Your task to perform on an android device: Open the calendar and show me this week's events? Image 0: 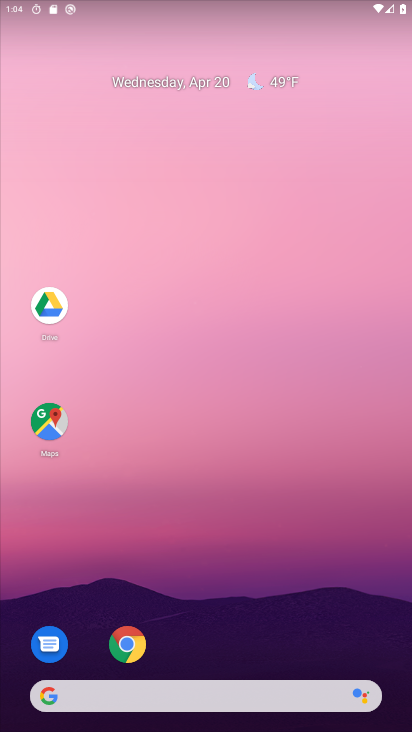
Step 0: drag from (238, 629) to (233, 39)
Your task to perform on an android device: Open the calendar and show me this week's events? Image 1: 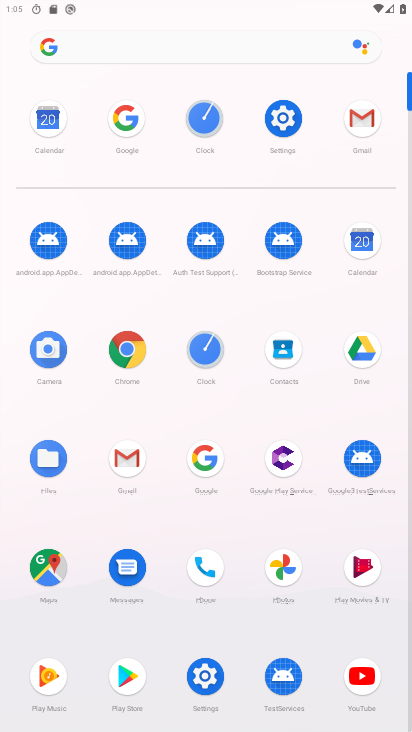
Step 1: click (356, 240)
Your task to perform on an android device: Open the calendar and show me this week's events? Image 2: 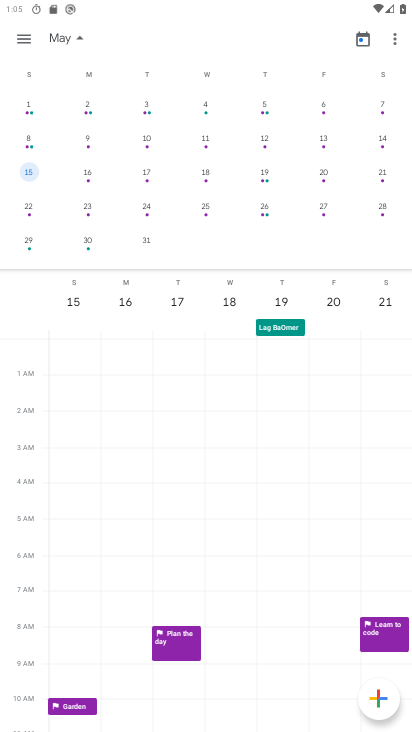
Step 2: click (79, 30)
Your task to perform on an android device: Open the calendar and show me this week's events? Image 3: 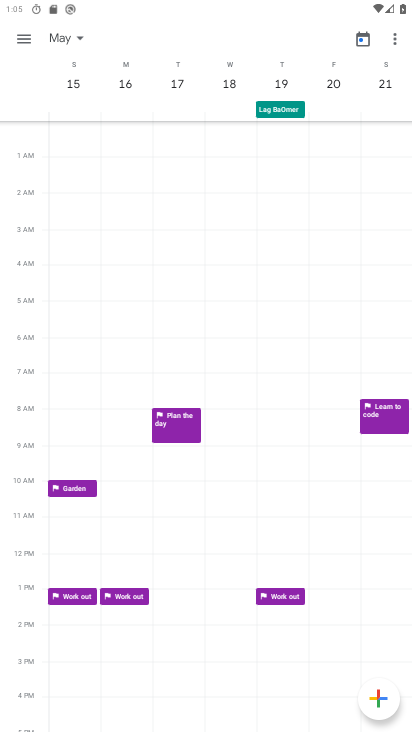
Step 3: click (78, 38)
Your task to perform on an android device: Open the calendar and show me this week's events? Image 4: 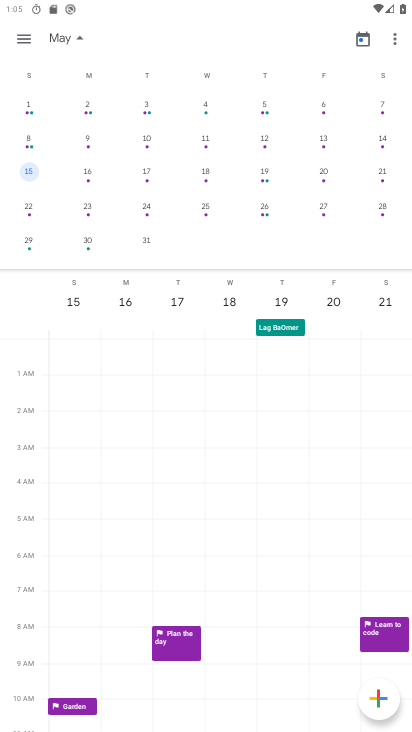
Step 4: drag from (57, 193) to (410, 210)
Your task to perform on an android device: Open the calendar and show me this week's events? Image 5: 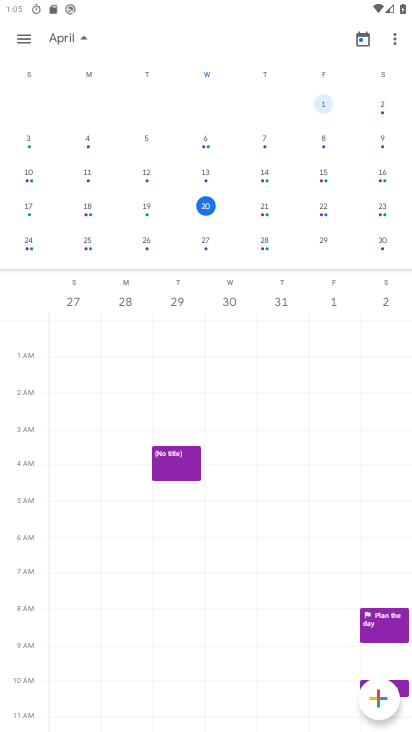
Step 5: click (36, 203)
Your task to perform on an android device: Open the calendar and show me this week's events? Image 6: 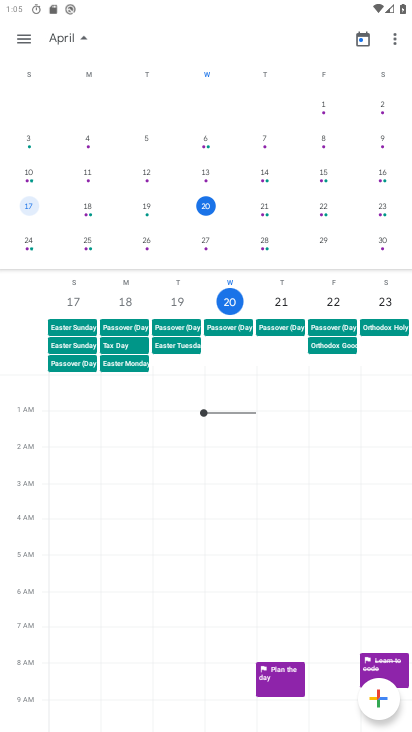
Step 6: task complete